Your task to perform on an android device: toggle airplane mode Image 0: 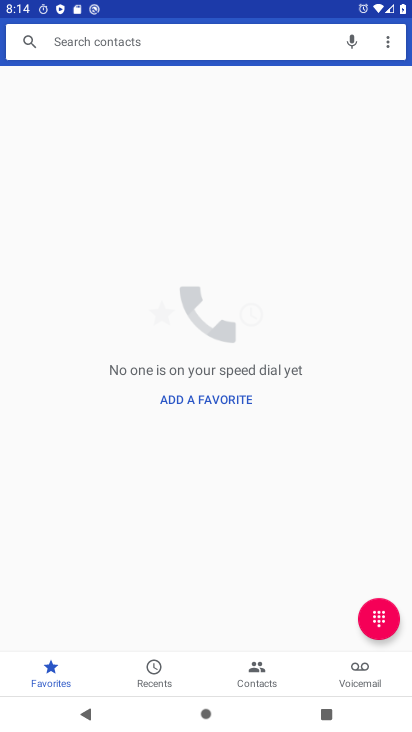
Step 0: press back button
Your task to perform on an android device: toggle airplane mode Image 1: 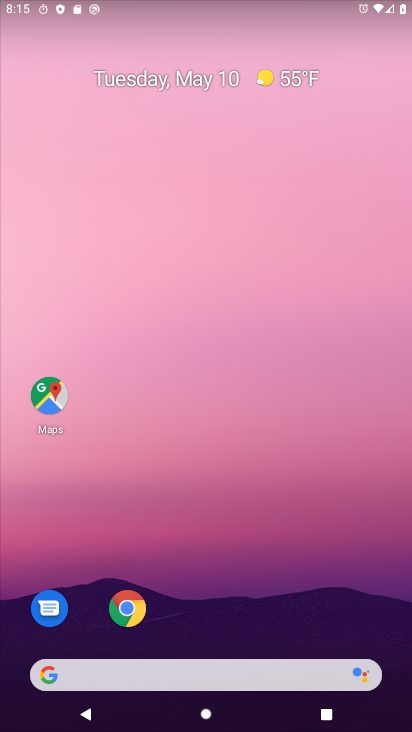
Step 1: drag from (248, 585) to (217, 81)
Your task to perform on an android device: toggle airplane mode Image 2: 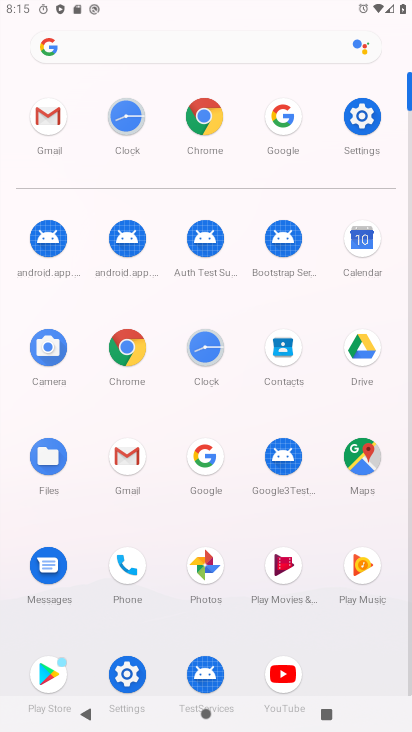
Step 2: click (361, 117)
Your task to perform on an android device: toggle airplane mode Image 3: 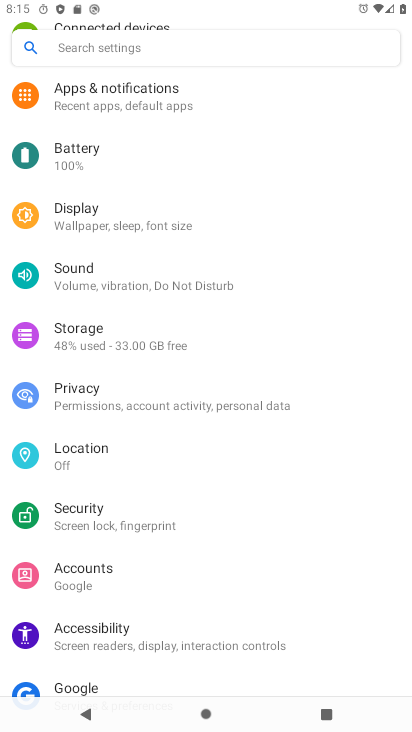
Step 3: drag from (213, 198) to (219, 332)
Your task to perform on an android device: toggle airplane mode Image 4: 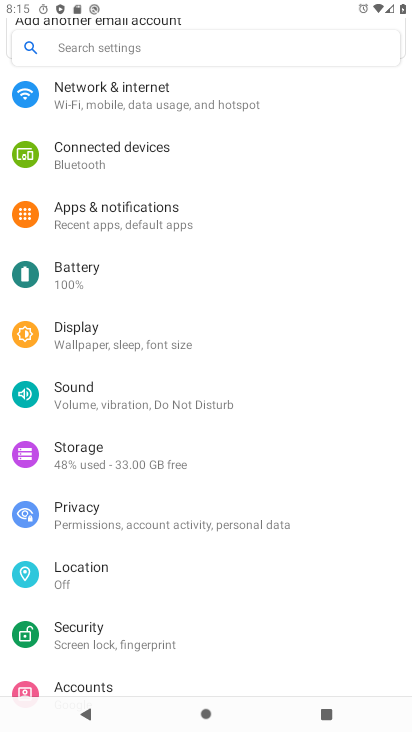
Step 4: drag from (158, 162) to (169, 406)
Your task to perform on an android device: toggle airplane mode Image 5: 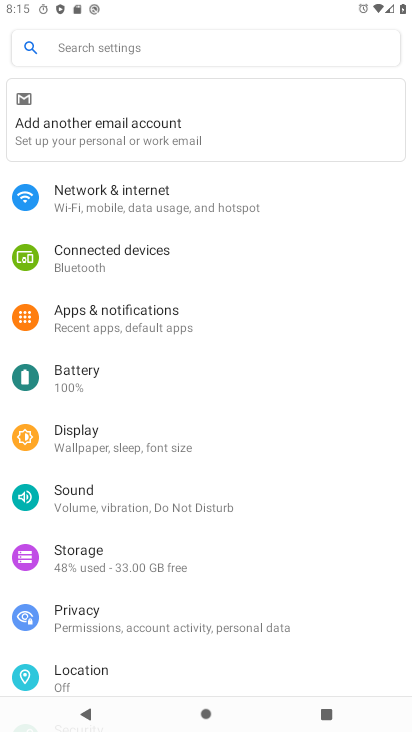
Step 5: click (132, 205)
Your task to perform on an android device: toggle airplane mode Image 6: 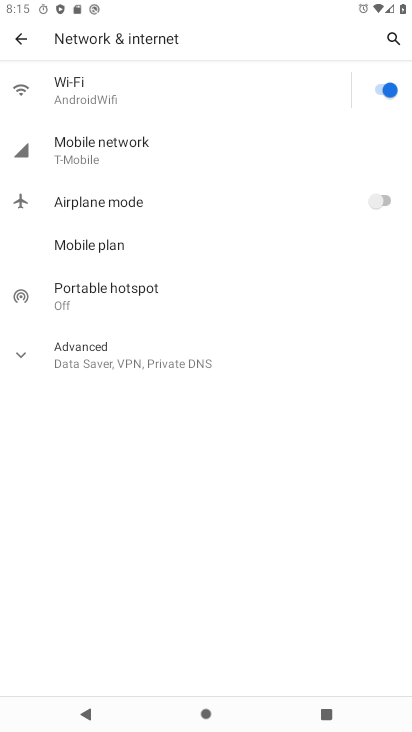
Step 6: click (382, 199)
Your task to perform on an android device: toggle airplane mode Image 7: 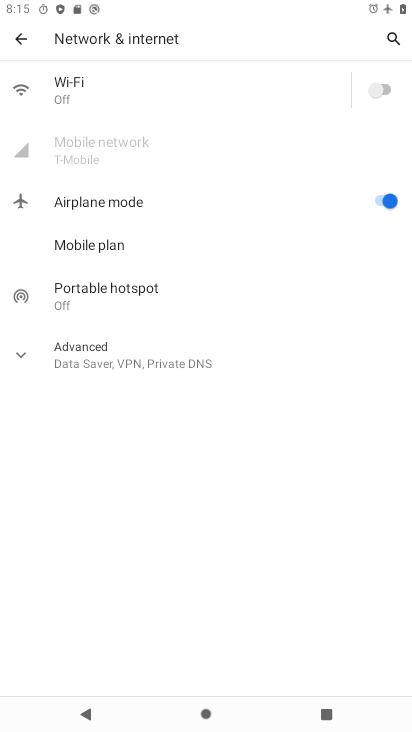
Step 7: task complete